Your task to perform on an android device: turn on notifications settings in the gmail app Image 0: 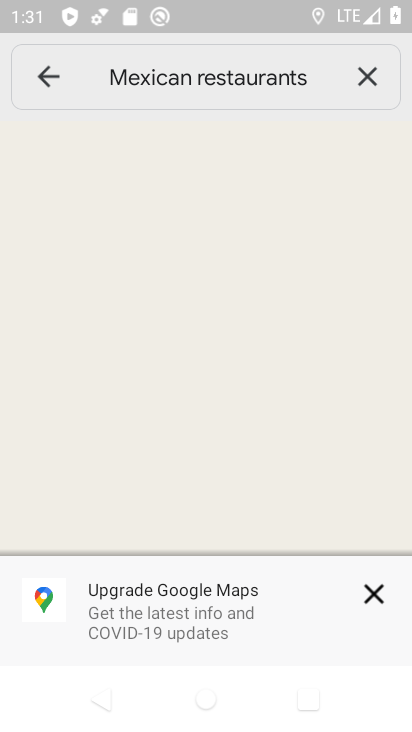
Step 0: press home button
Your task to perform on an android device: turn on notifications settings in the gmail app Image 1: 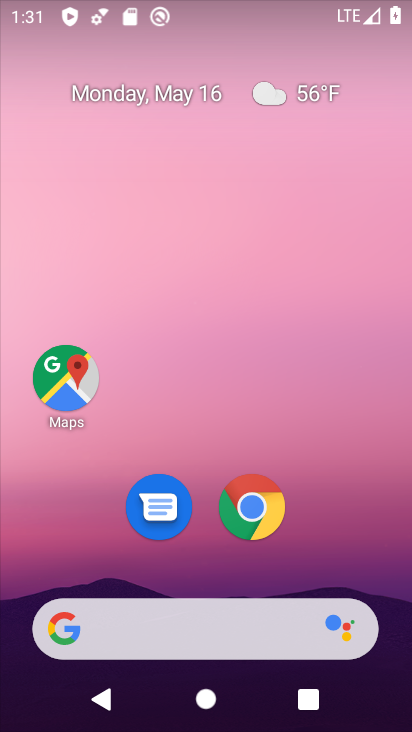
Step 1: drag from (200, 565) to (197, 206)
Your task to perform on an android device: turn on notifications settings in the gmail app Image 2: 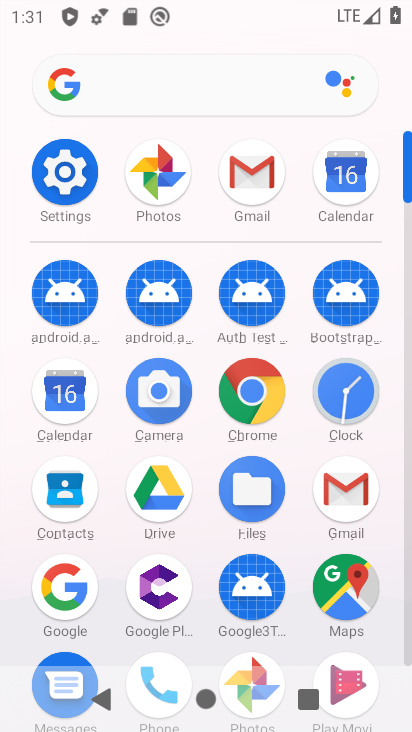
Step 2: click (247, 172)
Your task to perform on an android device: turn on notifications settings in the gmail app Image 3: 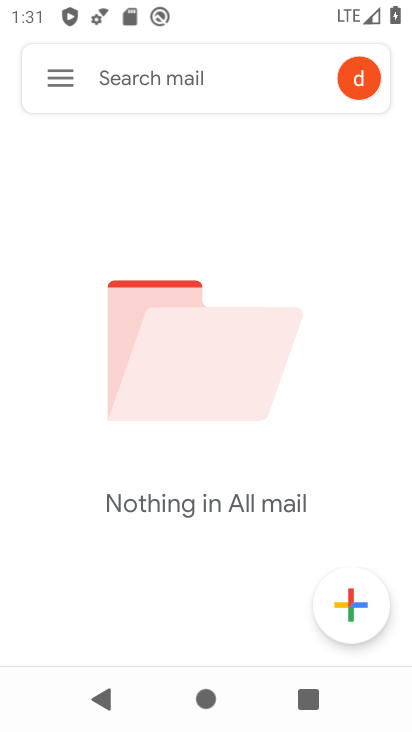
Step 3: click (57, 82)
Your task to perform on an android device: turn on notifications settings in the gmail app Image 4: 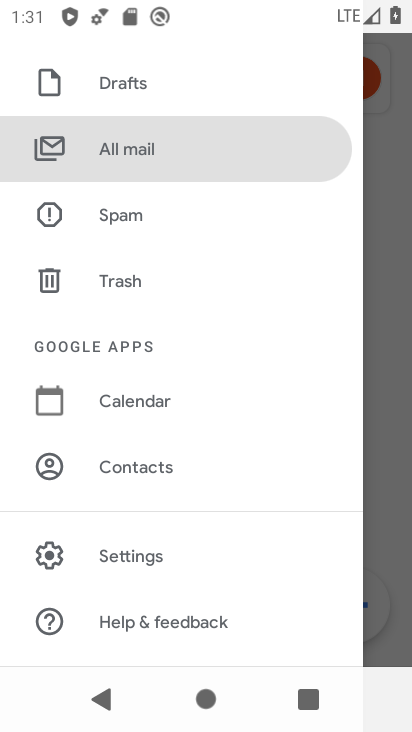
Step 4: click (158, 560)
Your task to perform on an android device: turn on notifications settings in the gmail app Image 5: 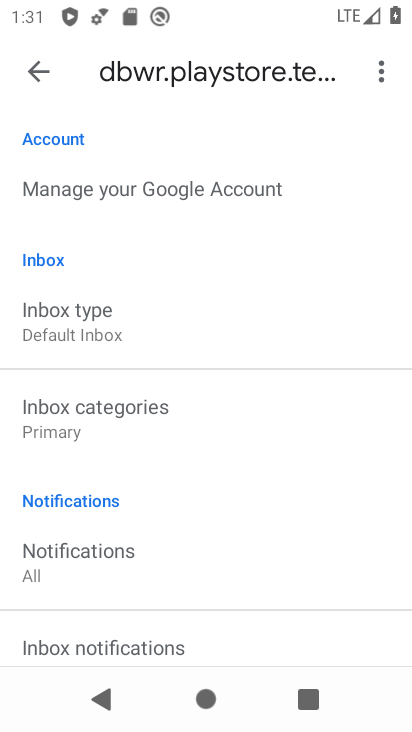
Step 5: drag from (140, 513) to (144, 339)
Your task to perform on an android device: turn on notifications settings in the gmail app Image 6: 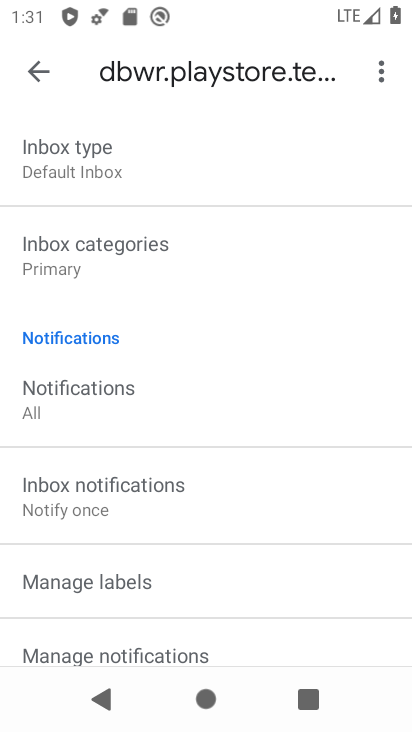
Step 6: drag from (183, 485) to (196, 316)
Your task to perform on an android device: turn on notifications settings in the gmail app Image 7: 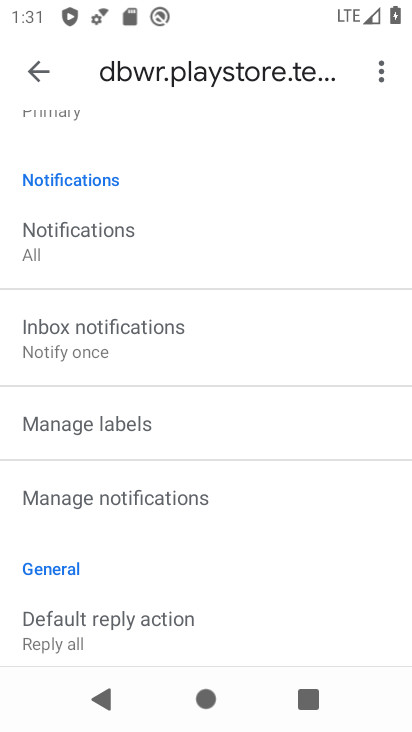
Step 7: click (150, 480)
Your task to perform on an android device: turn on notifications settings in the gmail app Image 8: 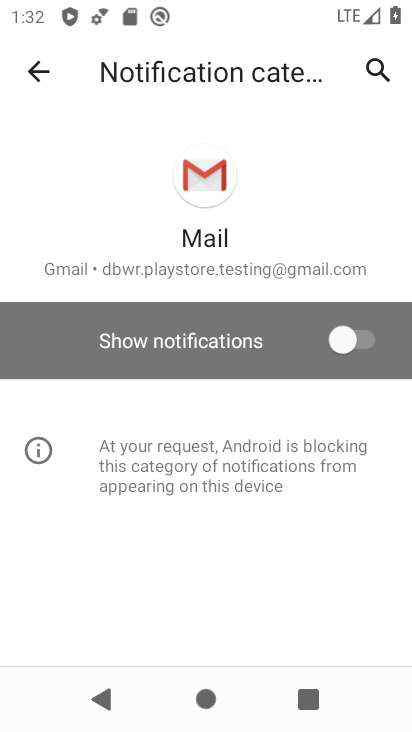
Step 8: click (368, 329)
Your task to perform on an android device: turn on notifications settings in the gmail app Image 9: 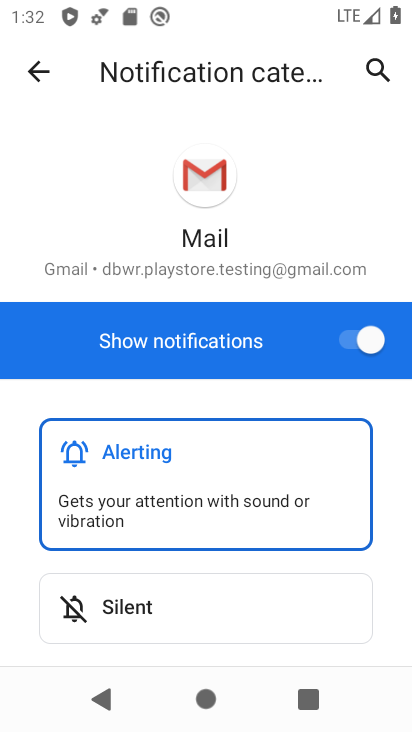
Step 9: task complete